Your task to perform on an android device: toggle airplane mode Image 0: 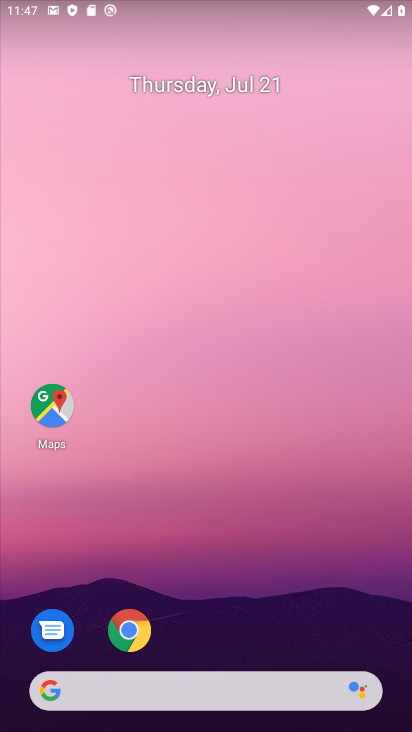
Step 0: drag from (336, 7) to (291, 455)
Your task to perform on an android device: toggle airplane mode Image 1: 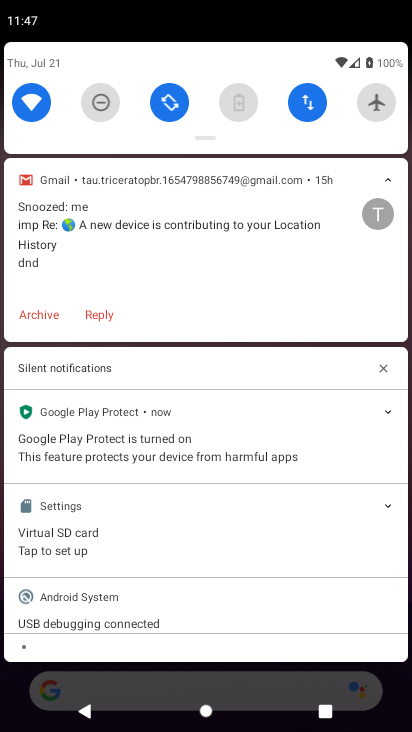
Step 1: click (381, 103)
Your task to perform on an android device: toggle airplane mode Image 2: 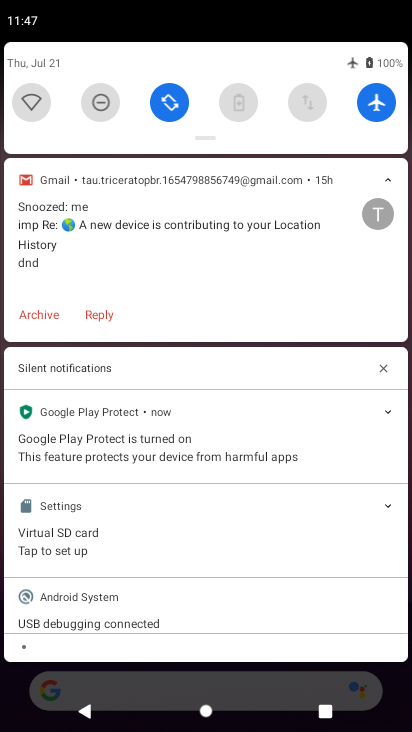
Step 2: task complete